Your task to perform on an android device: Open eBay Image 0: 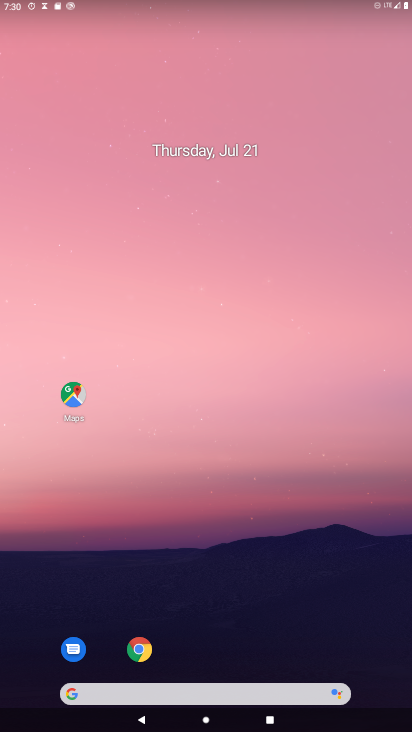
Step 0: drag from (351, 646) to (193, 26)
Your task to perform on an android device: Open eBay Image 1: 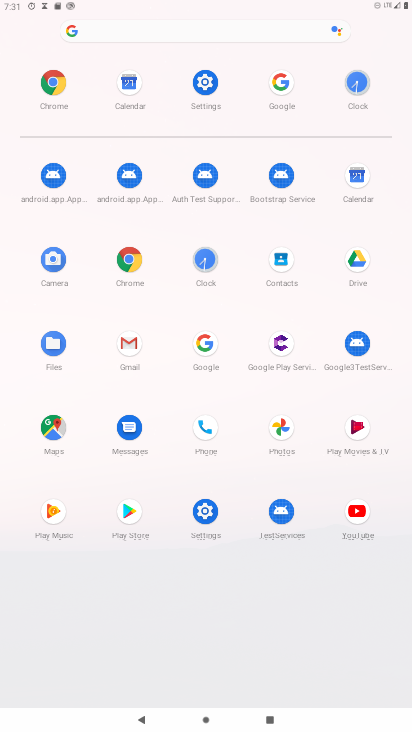
Step 1: click (200, 343)
Your task to perform on an android device: Open eBay Image 2: 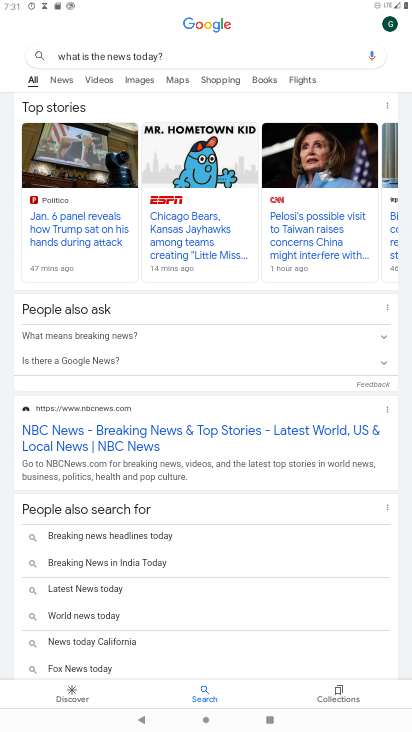
Step 2: press back button
Your task to perform on an android device: Open eBay Image 3: 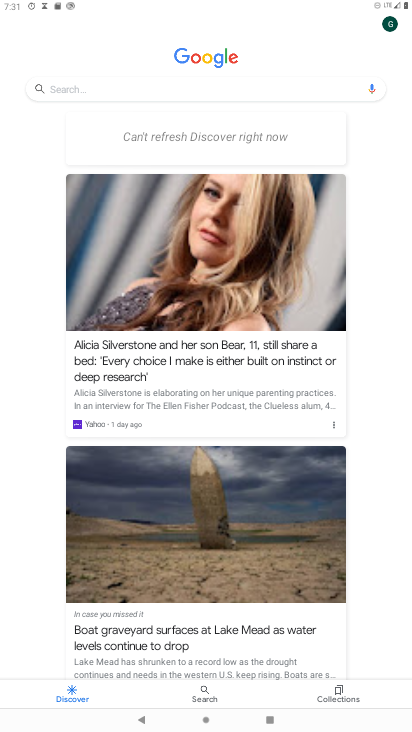
Step 3: click (99, 84)
Your task to perform on an android device: Open eBay Image 4: 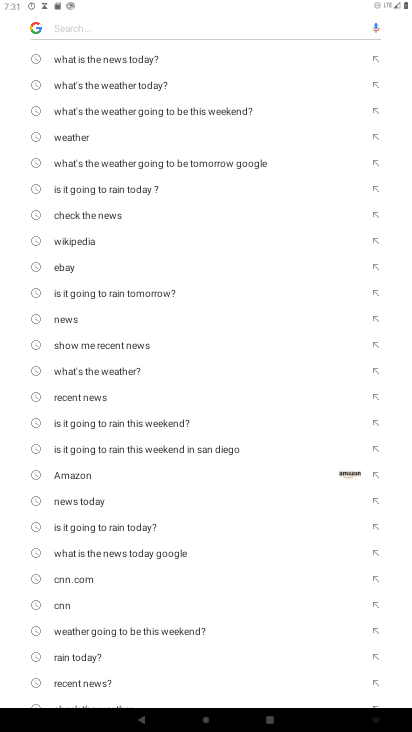
Step 4: click (65, 273)
Your task to perform on an android device: Open eBay Image 5: 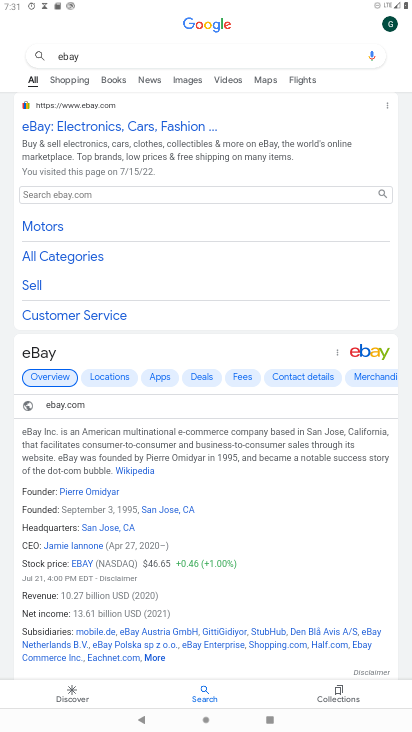
Step 5: task complete